Your task to perform on an android device: Open calendar and show me the second week of next month Image 0: 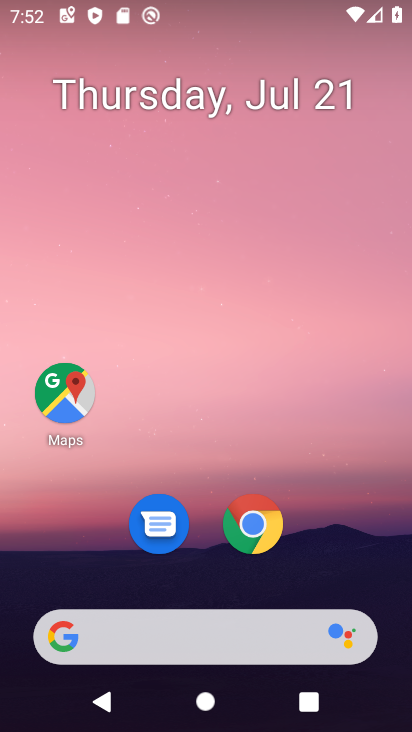
Step 0: press home button
Your task to perform on an android device: Open calendar and show me the second week of next month Image 1: 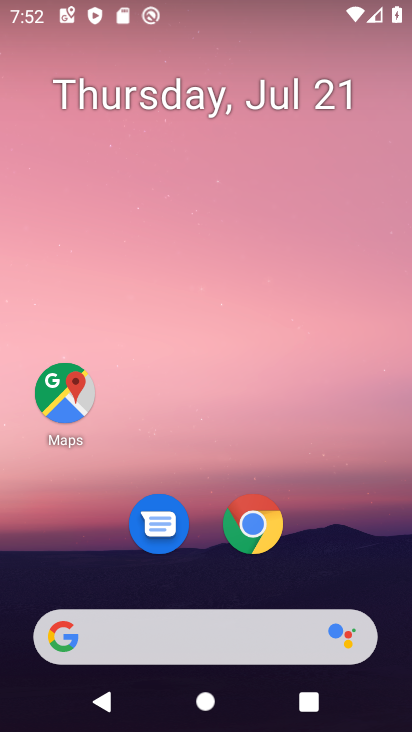
Step 1: drag from (170, 628) to (292, 167)
Your task to perform on an android device: Open calendar and show me the second week of next month Image 2: 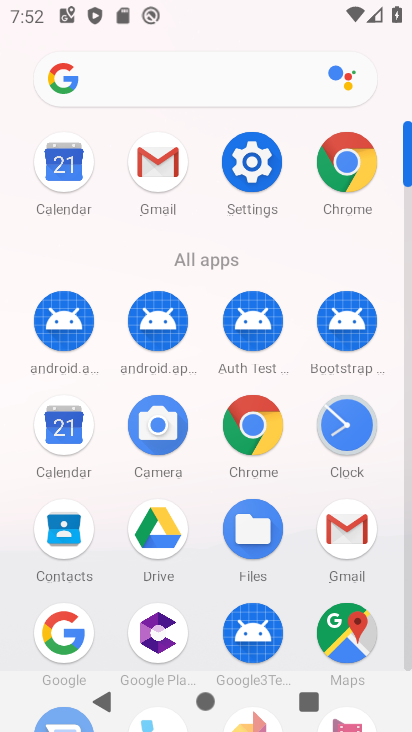
Step 2: click (60, 427)
Your task to perform on an android device: Open calendar and show me the second week of next month Image 3: 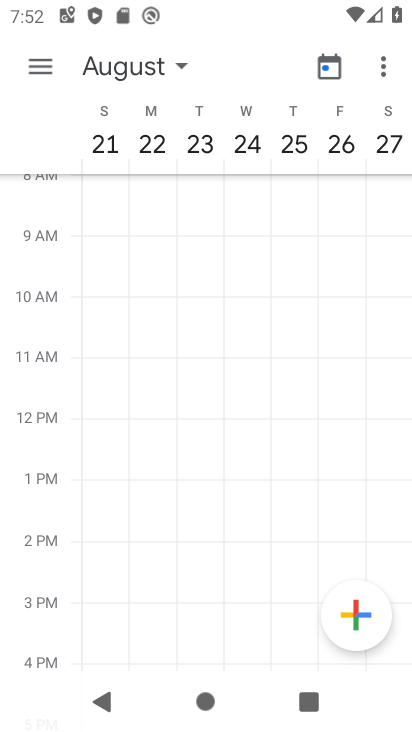
Step 3: click (135, 66)
Your task to perform on an android device: Open calendar and show me the second week of next month Image 4: 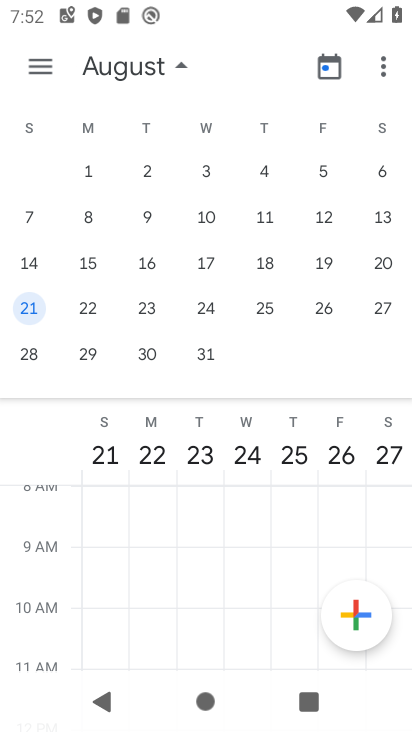
Step 4: click (34, 223)
Your task to perform on an android device: Open calendar and show me the second week of next month Image 5: 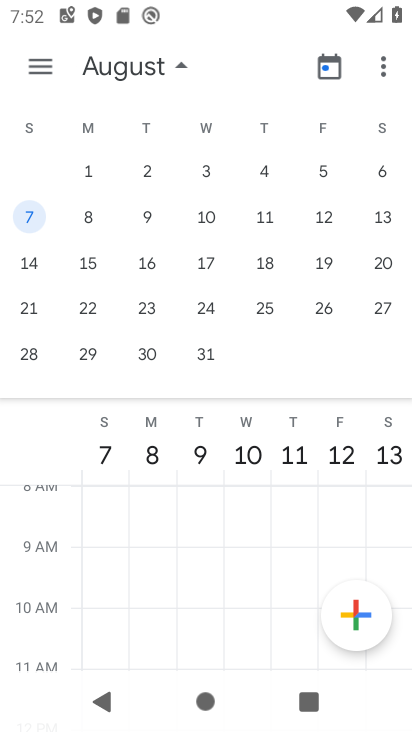
Step 5: task complete